Your task to perform on an android device: make emails show in primary in the gmail app Image 0: 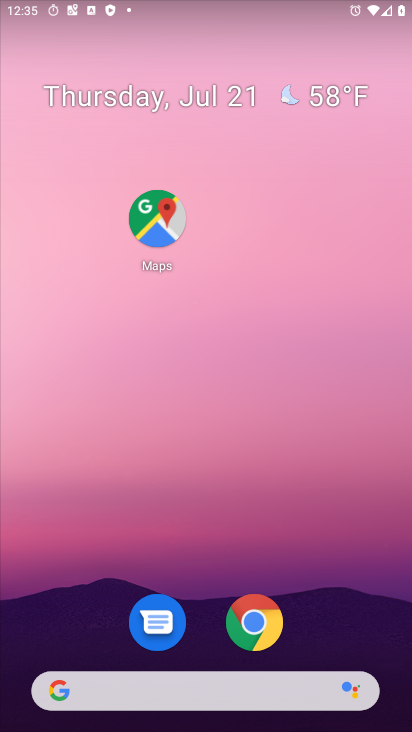
Step 0: drag from (34, 650) to (212, 110)
Your task to perform on an android device: make emails show in primary in the gmail app Image 1: 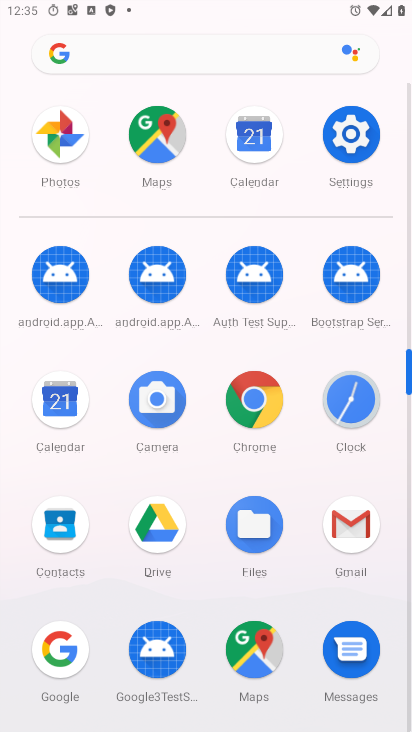
Step 1: click (341, 520)
Your task to perform on an android device: make emails show in primary in the gmail app Image 2: 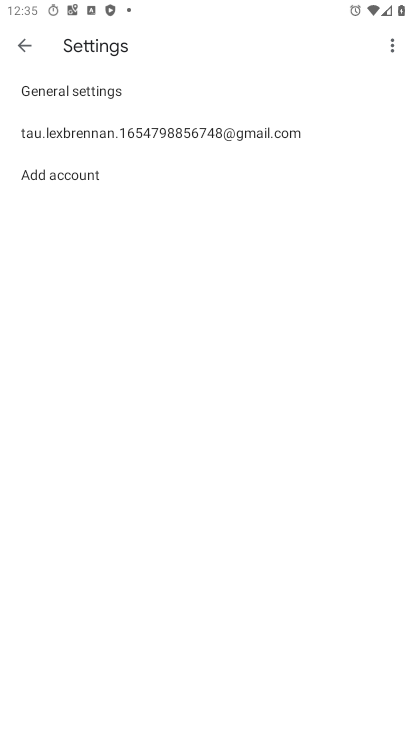
Step 2: click (28, 32)
Your task to perform on an android device: make emails show in primary in the gmail app Image 3: 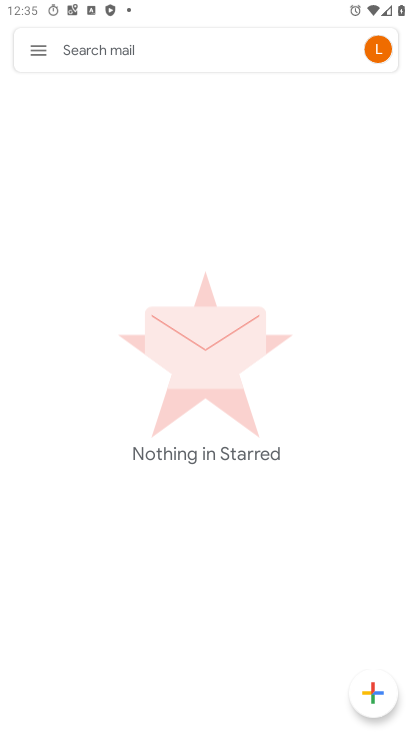
Step 3: click (32, 49)
Your task to perform on an android device: make emails show in primary in the gmail app Image 4: 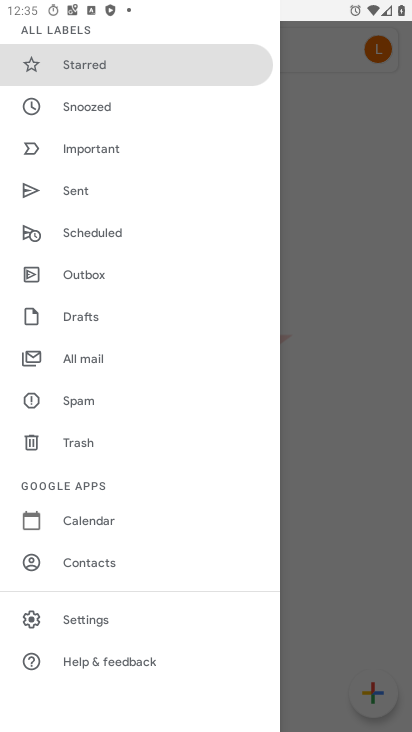
Step 4: drag from (182, 79) to (264, 596)
Your task to perform on an android device: make emails show in primary in the gmail app Image 5: 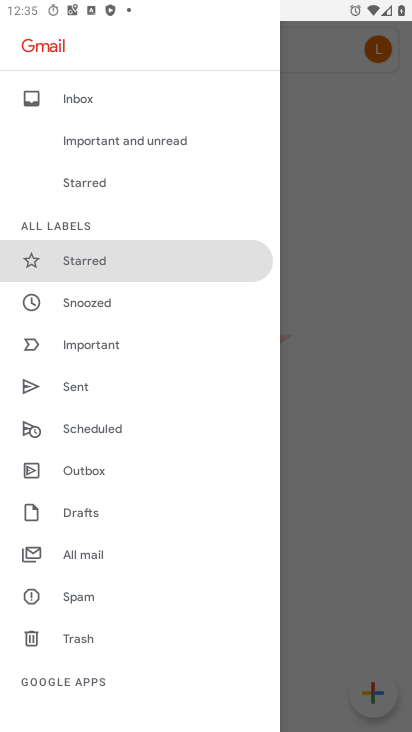
Step 5: click (75, 107)
Your task to perform on an android device: make emails show in primary in the gmail app Image 6: 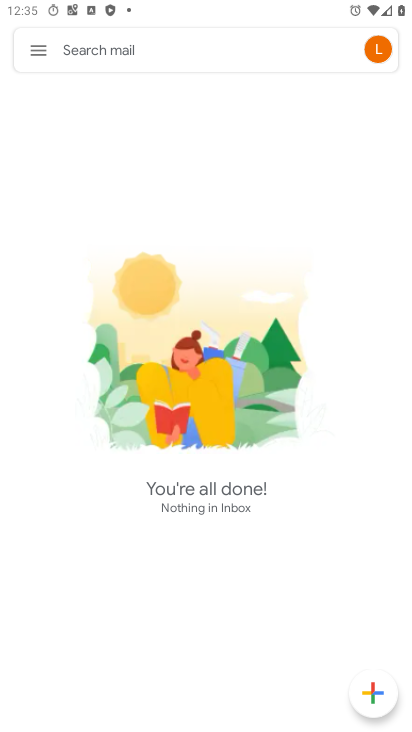
Step 6: task complete